Your task to perform on an android device: toggle data saver in the chrome app Image 0: 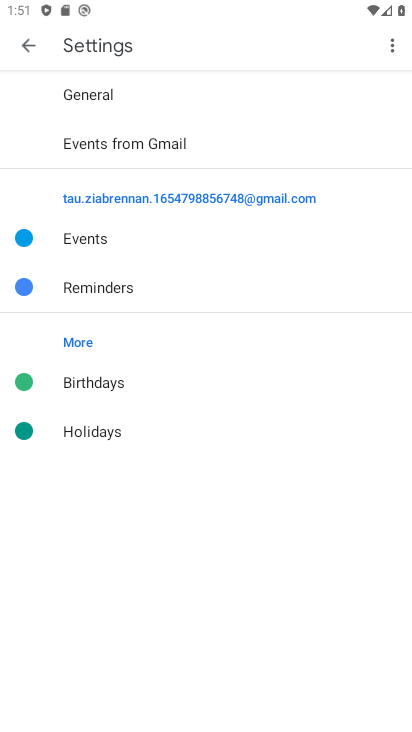
Step 0: press home button
Your task to perform on an android device: toggle data saver in the chrome app Image 1: 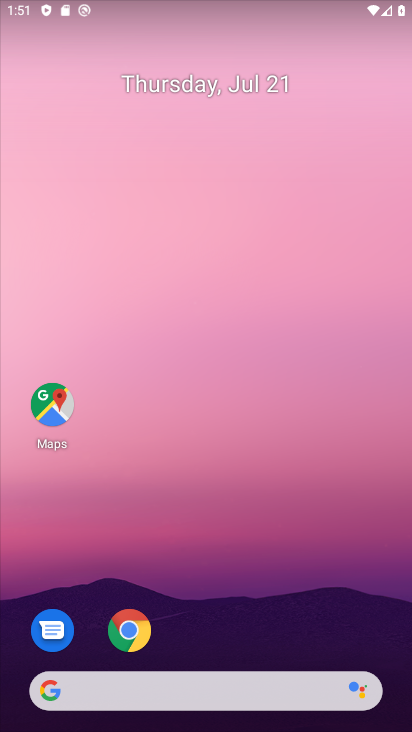
Step 1: drag from (186, 12) to (194, 510)
Your task to perform on an android device: toggle data saver in the chrome app Image 2: 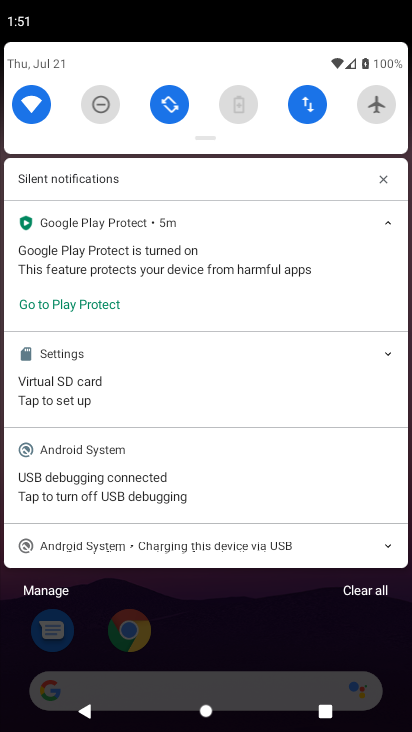
Step 2: drag from (157, 99) to (165, 296)
Your task to perform on an android device: toggle data saver in the chrome app Image 3: 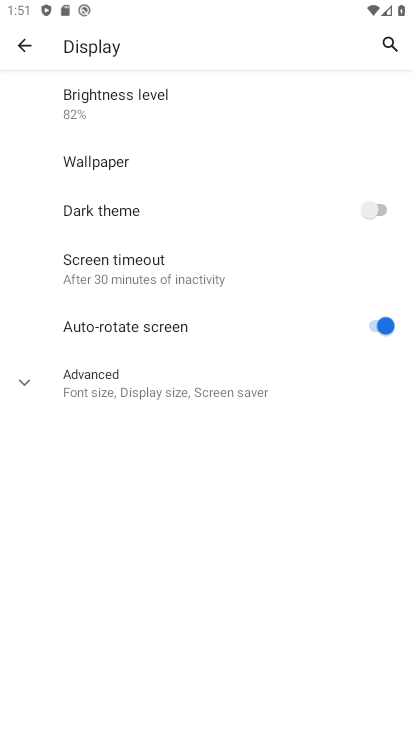
Step 3: drag from (191, 11) to (158, 259)
Your task to perform on an android device: toggle data saver in the chrome app Image 4: 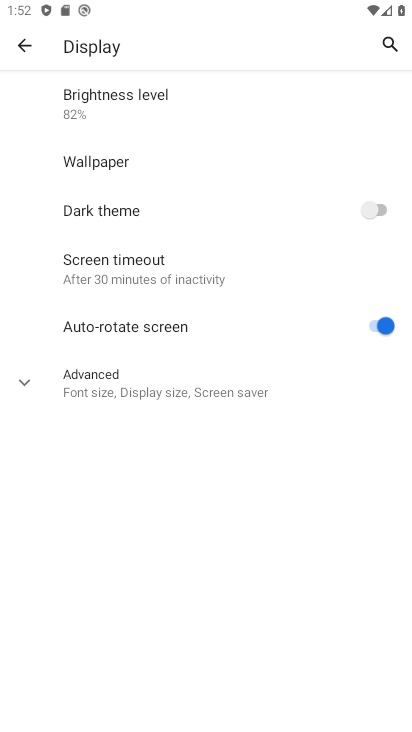
Step 4: drag from (226, 16) to (219, 376)
Your task to perform on an android device: toggle data saver in the chrome app Image 5: 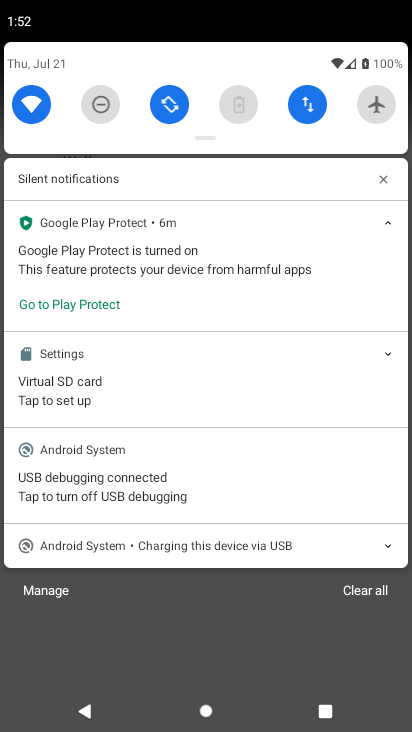
Step 5: click (312, 113)
Your task to perform on an android device: toggle data saver in the chrome app Image 6: 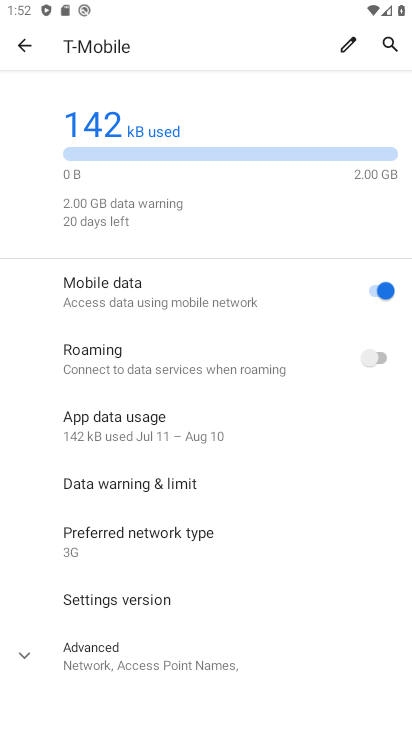
Step 6: task complete